Your task to perform on an android device: Search for sushi restaurants on Maps Image 0: 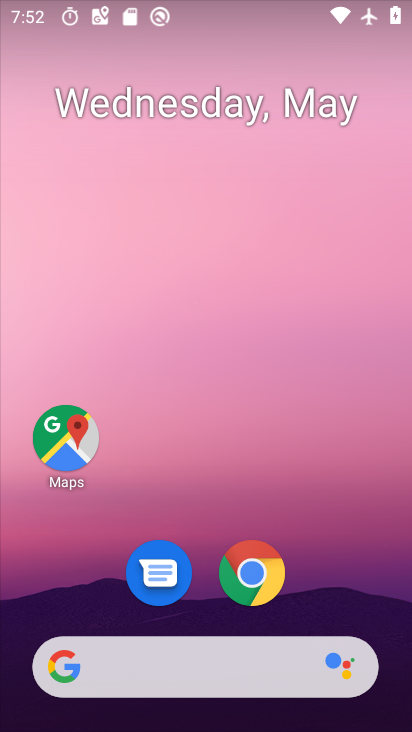
Step 0: click (50, 432)
Your task to perform on an android device: Search for sushi restaurants on Maps Image 1: 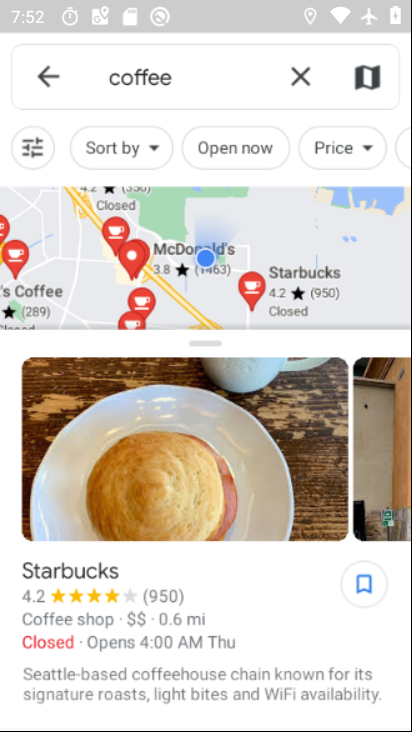
Step 1: click (304, 77)
Your task to perform on an android device: Search for sushi restaurants on Maps Image 2: 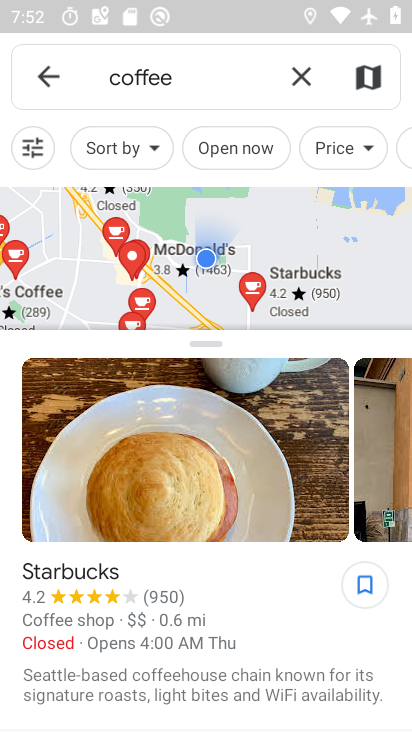
Step 2: click (297, 68)
Your task to perform on an android device: Search for sushi restaurants on Maps Image 3: 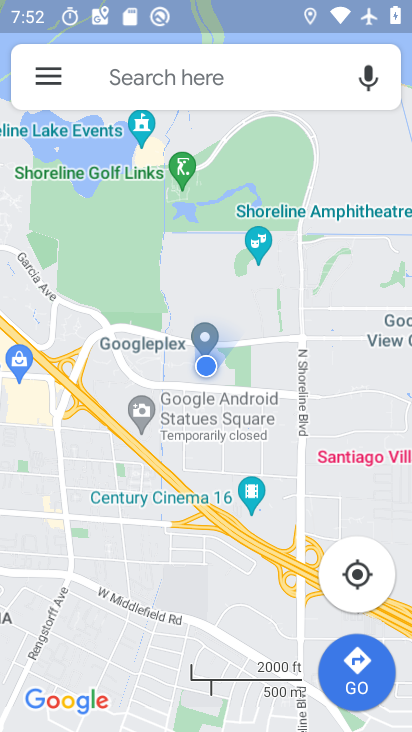
Step 3: click (267, 85)
Your task to perform on an android device: Search for sushi restaurants on Maps Image 4: 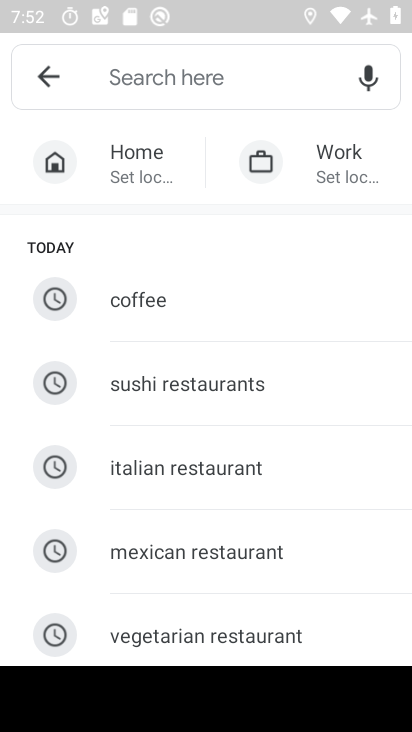
Step 4: type "sushi restaureant"
Your task to perform on an android device: Search for sushi restaurants on Maps Image 5: 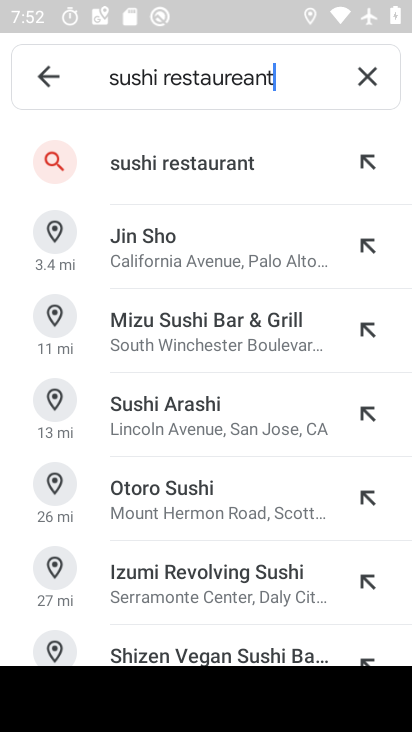
Step 5: click (203, 163)
Your task to perform on an android device: Search for sushi restaurants on Maps Image 6: 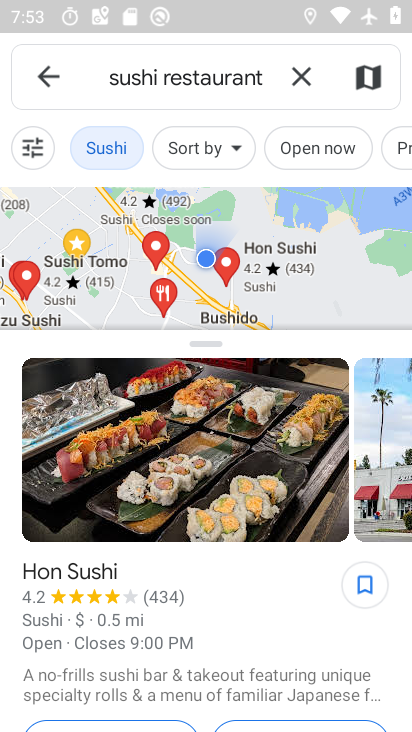
Step 6: task complete